Your task to perform on an android device: Go to battery settings Image 0: 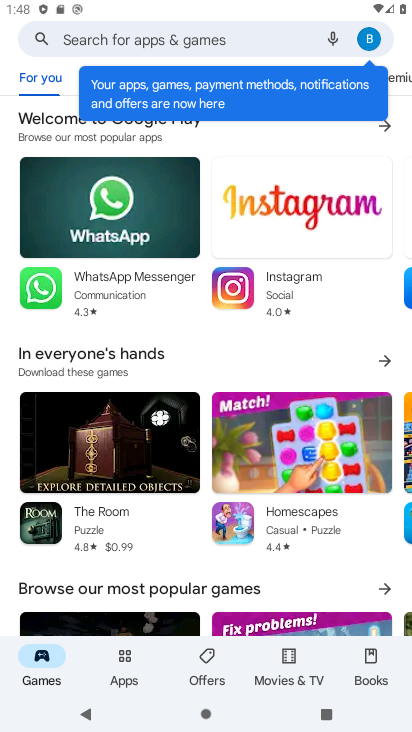
Step 0: press home button
Your task to perform on an android device: Go to battery settings Image 1: 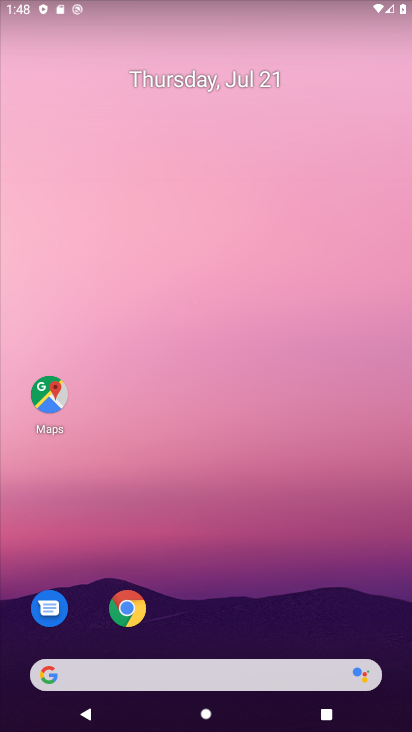
Step 1: drag from (215, 572) to (152, 136)
Your task to perform on an android device: Go to battery settings Image 2: 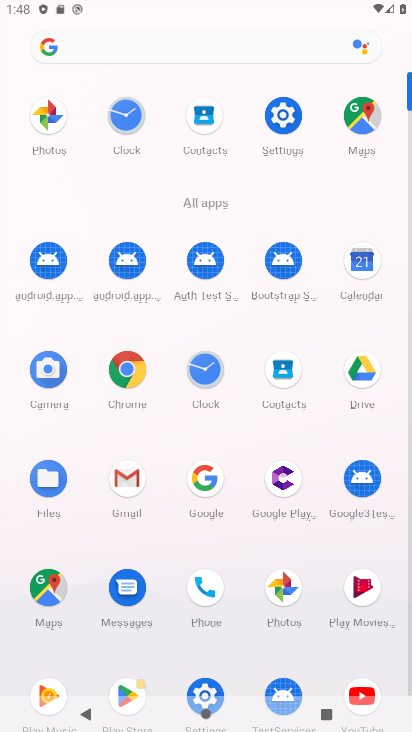
Step 2: click (282, 115)
Your task to perform on an android device: Go to battery settings Image 3: 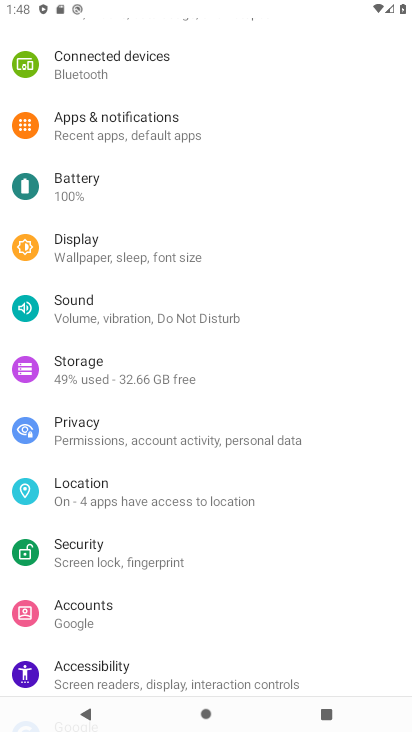
Step 3: click (79, 185)
Your task to perform on an android device: Go to battery settings Image 4: 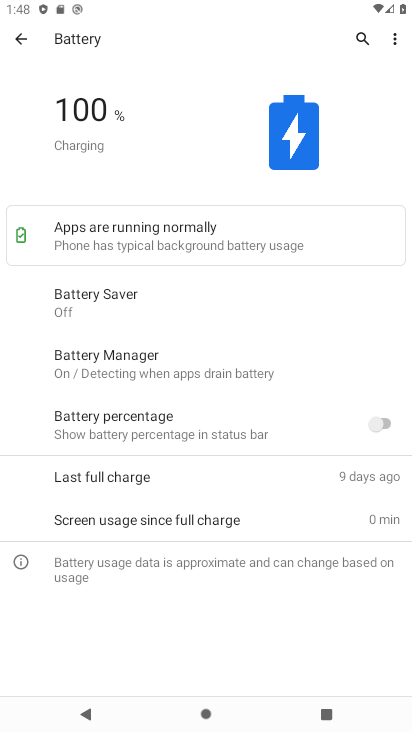
Step 4: task complete